Your task to perform on an android device: refresh tabs in the chrome app Image 0: 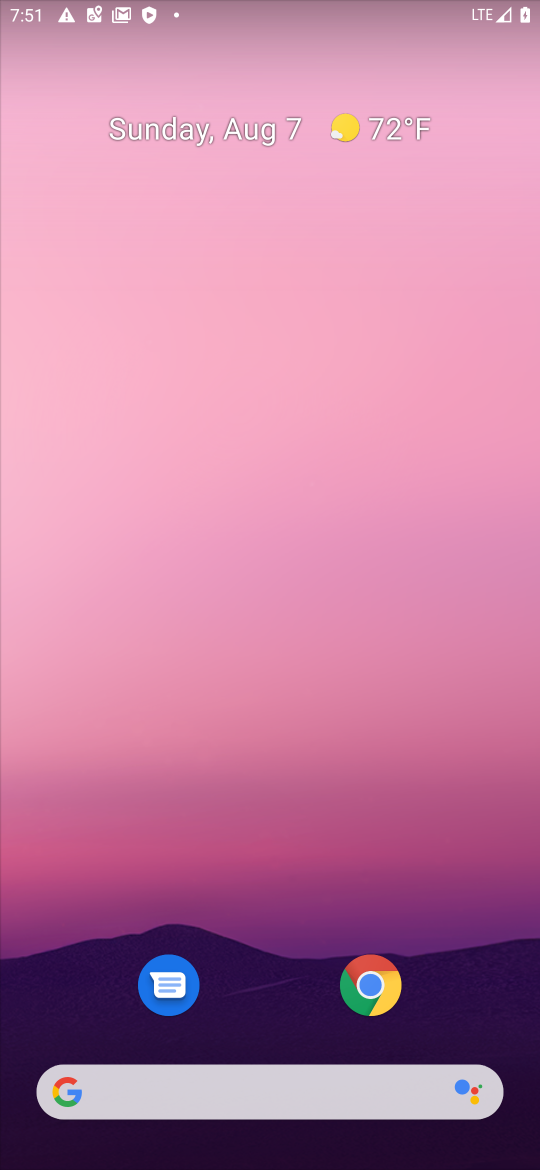
Step 0: drag from (226, 1055) to (251, 296)
Your task to perform on an android device: refresh tabs in the chrome app Image 1: 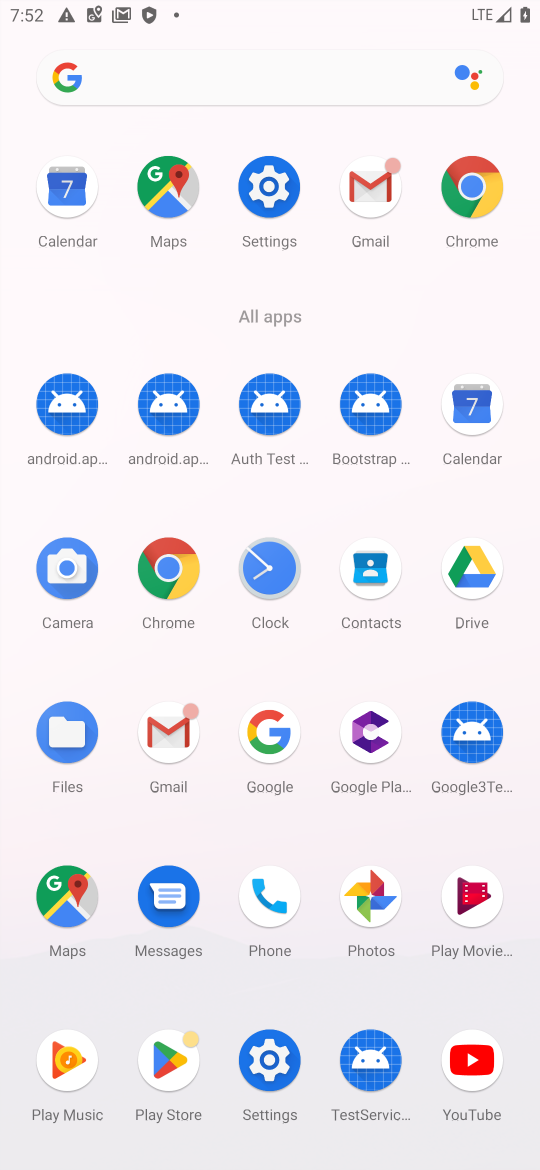
Step 1: click (464, 180)
Your task to perform on an android device: refresh tabs in the chrome app Image 2: 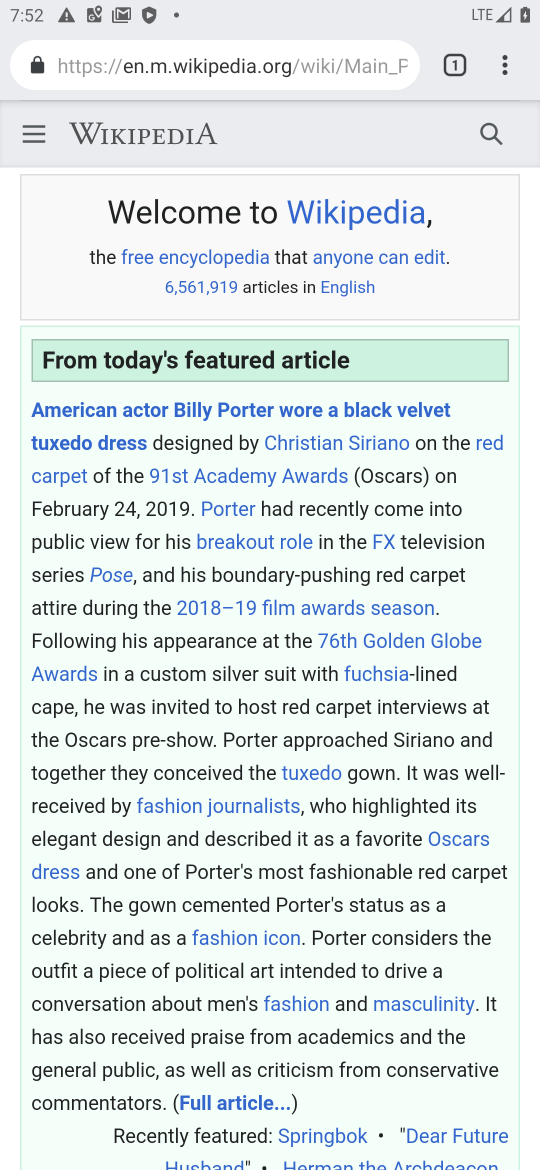
Step 2: click (497, 77)
Your task to perform on an android device: refresh tabs in the chrome app Image 3: 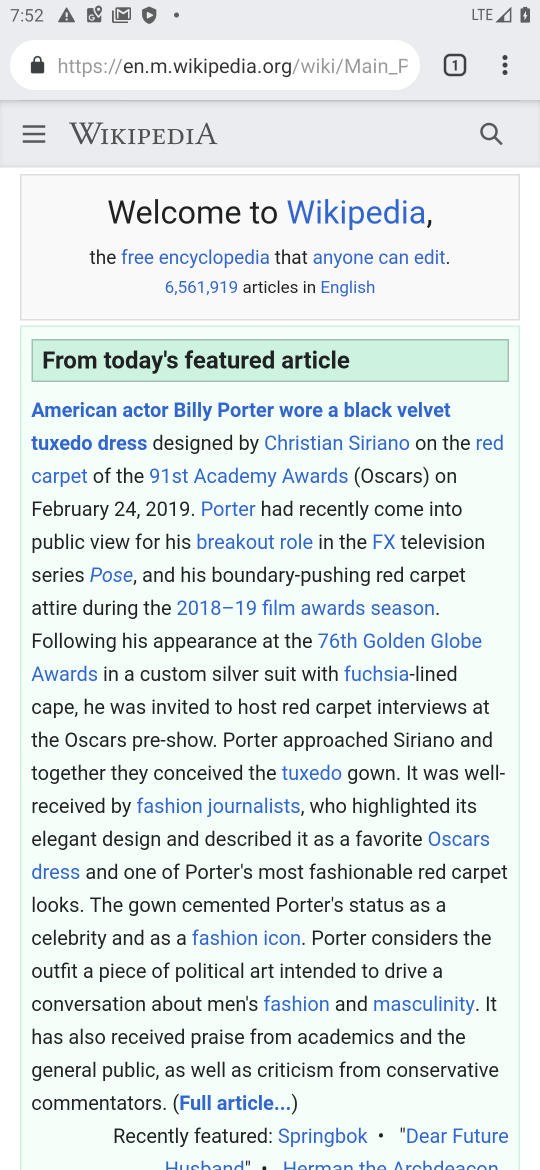
Step 3: click (489, 70)
Your task to perform on an android device: refresh tabs in the chrome app Image 4: 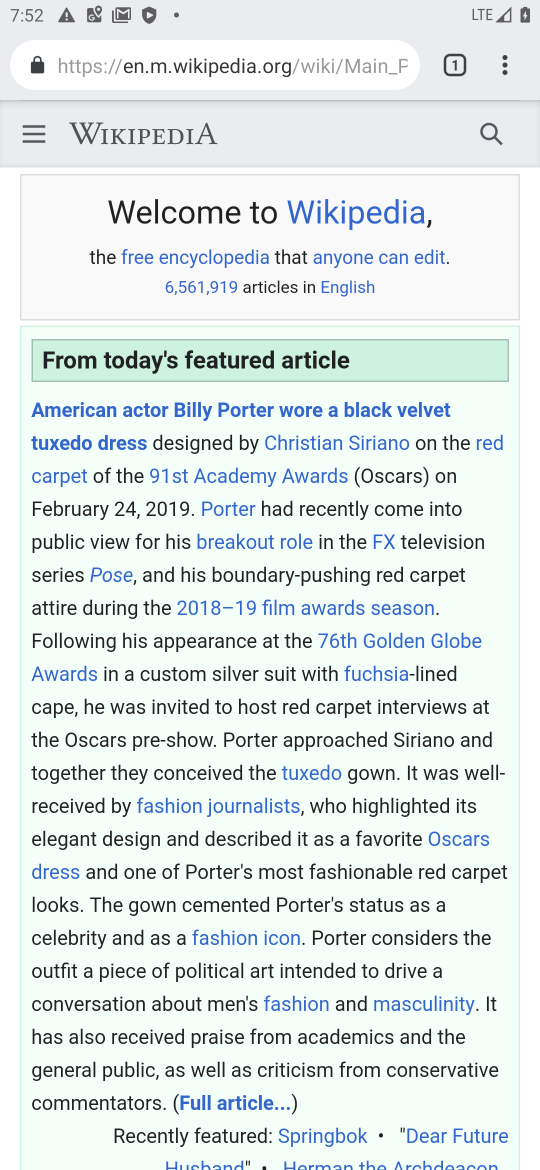
Step 4: click (489, 70)
Your task to perform on an android device: refresh tabs in the chrome app Image 5: 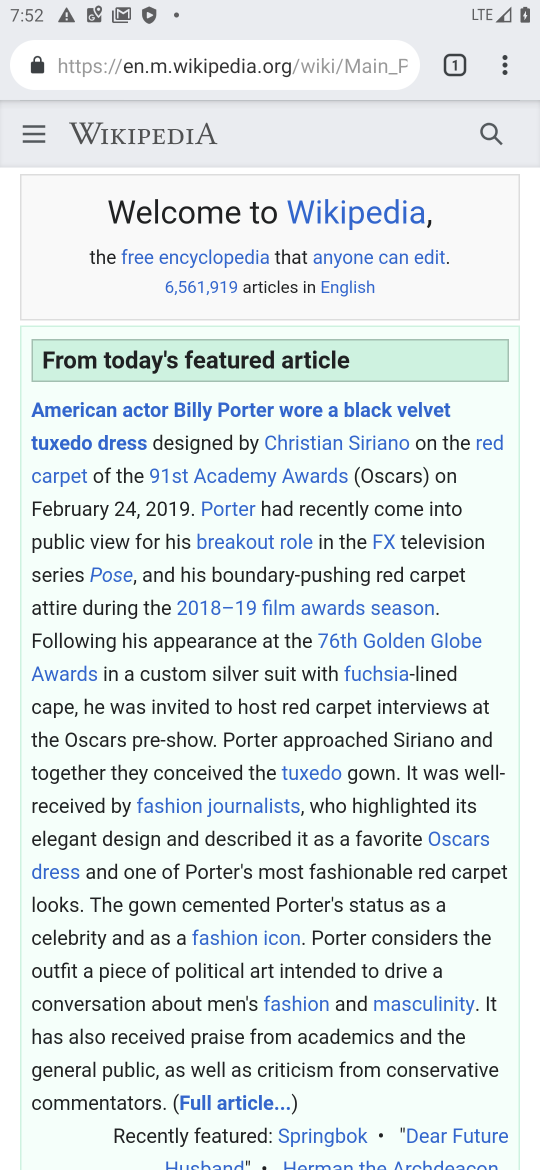
Step 5: click (505, 55)
Your task to perform on an android device: refresh tabs in the chrome app Image 6: 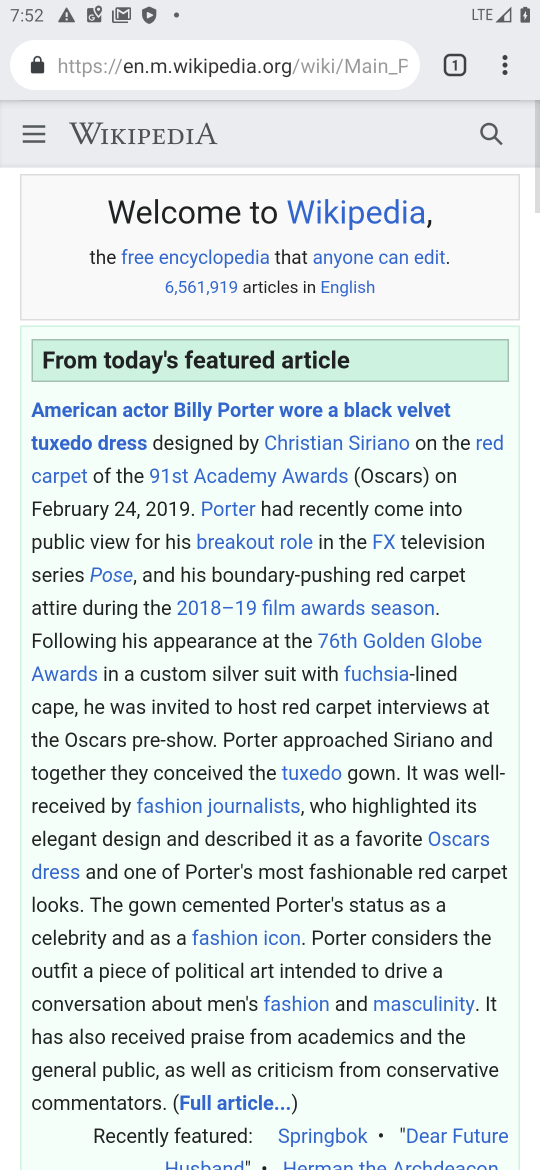
Step 6: click (502, 78)
Your task to perform on an android device: refresh tabs in the chrome app Image 7: 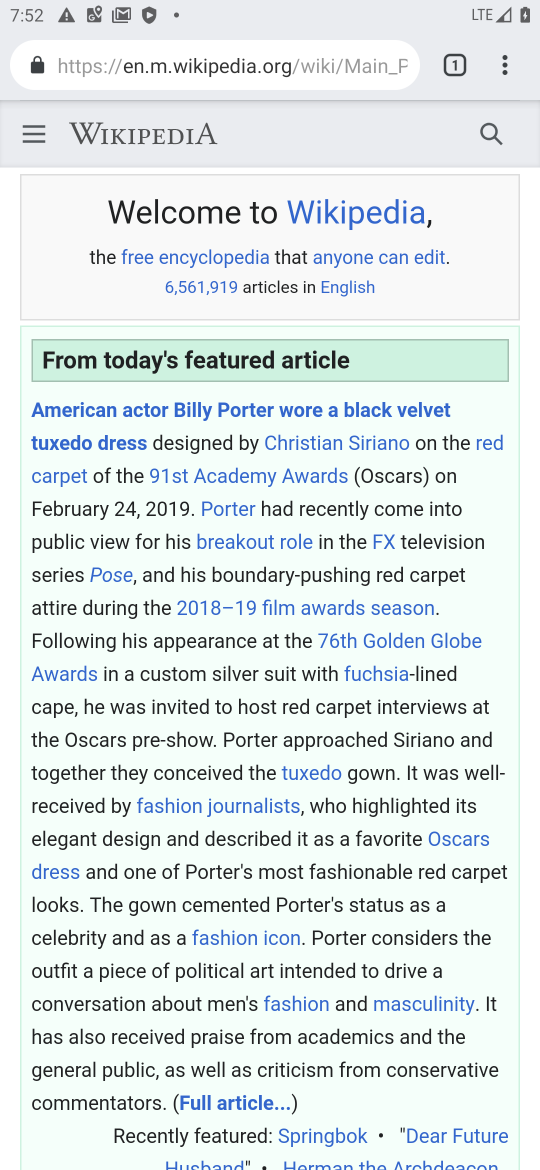
Step 7: click (510, 60)
Your task to perform on an android device: refresh tabs in the chrome app Image 8: 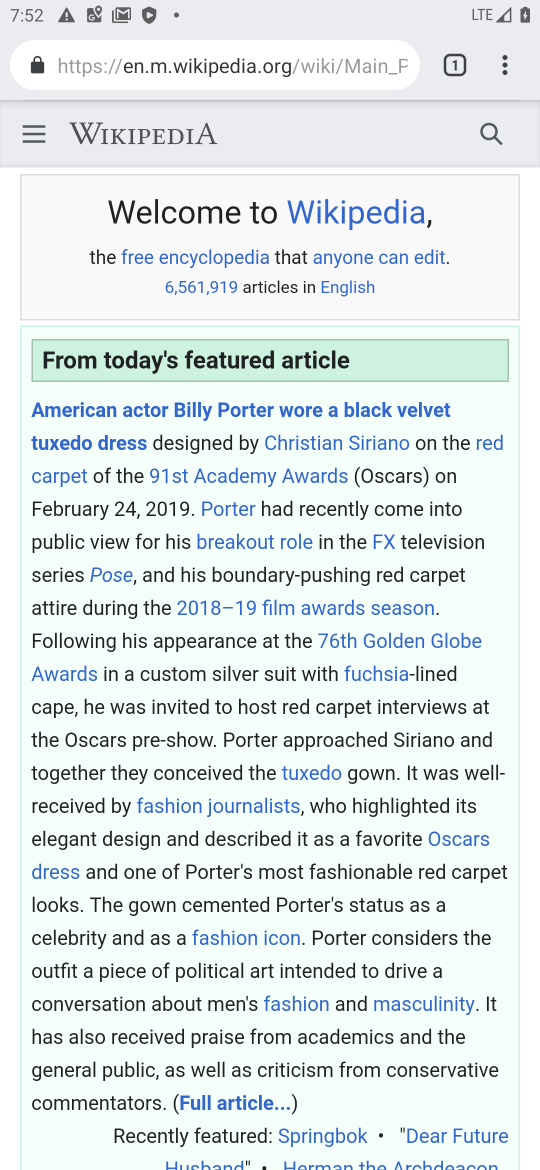
Step 8: click (513, 55)
Your task to perform on an android device: refresh tabs in the chrome app Image 9: 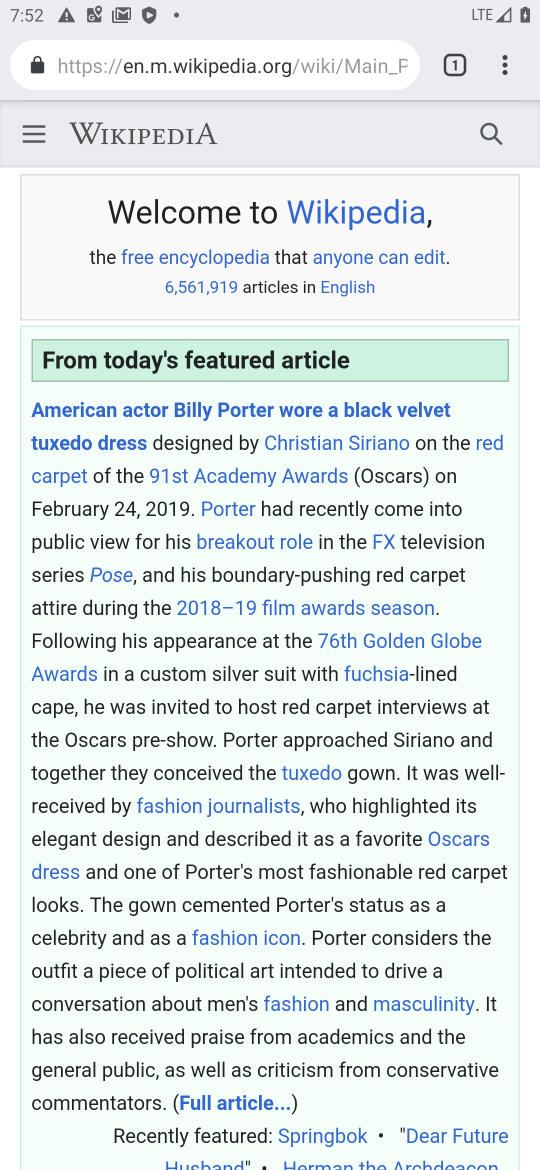
Step 9: click (513, 58)
Your task to perform on an android device: refresh tabs in the chrome app Image 10: 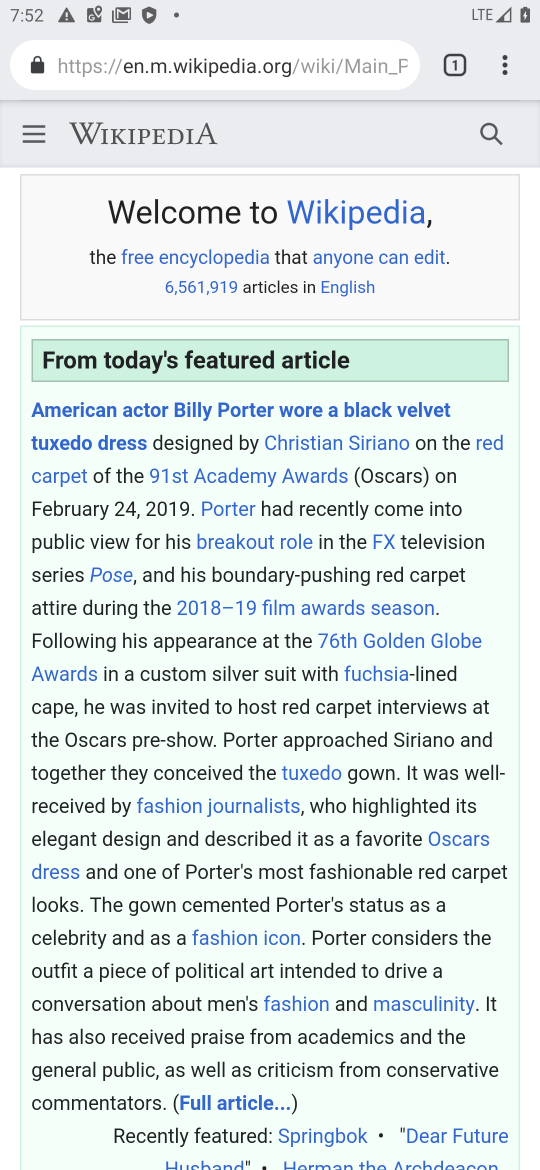
Step 10: click (495, 72)
Your task to perform on an android device: refresh tabs in the chrome app Image 11: 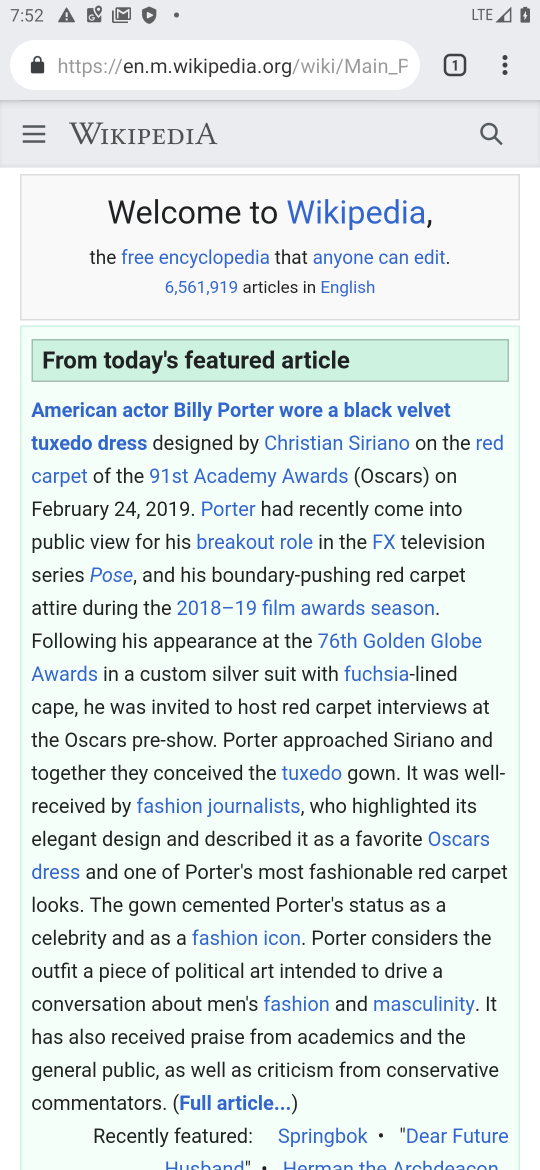
Step 11: click (495, 72)
Your task to perform on an android device: refresh tabs in the chrome app Image 12: 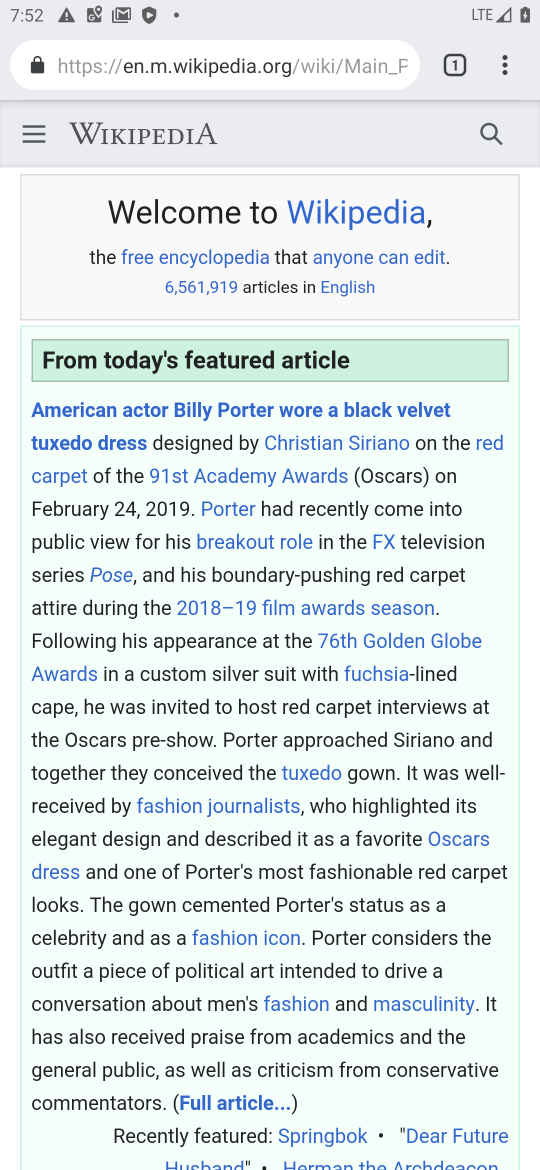
Step 12: click (483, 56)
Your task to perform on an android device: refresh tabs in the chrome app Image 13: 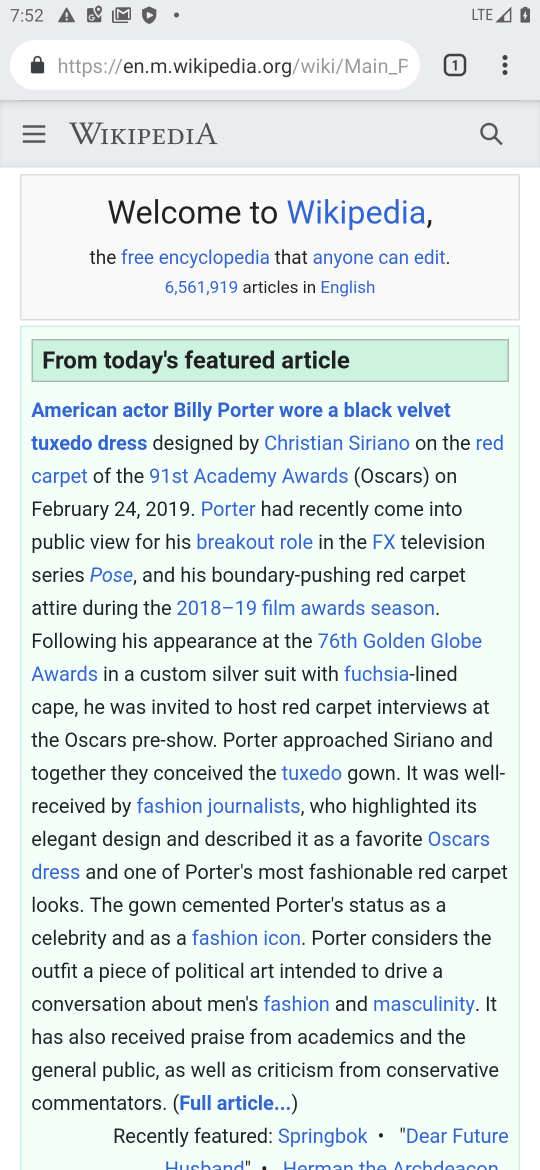
Step 13: click (493, 71)
Your task to perform on an android device: refresh tabs in the chrome app Image 14: 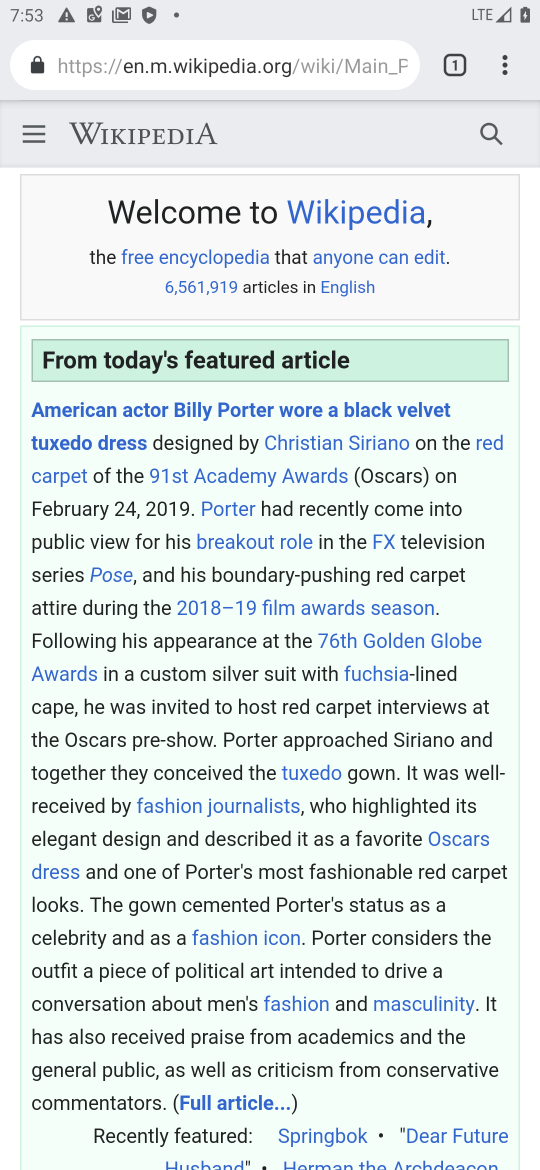
Step 14: click (493, 71)
Your task to perform on an android device: refresh tabs in the chrome app Image 15: 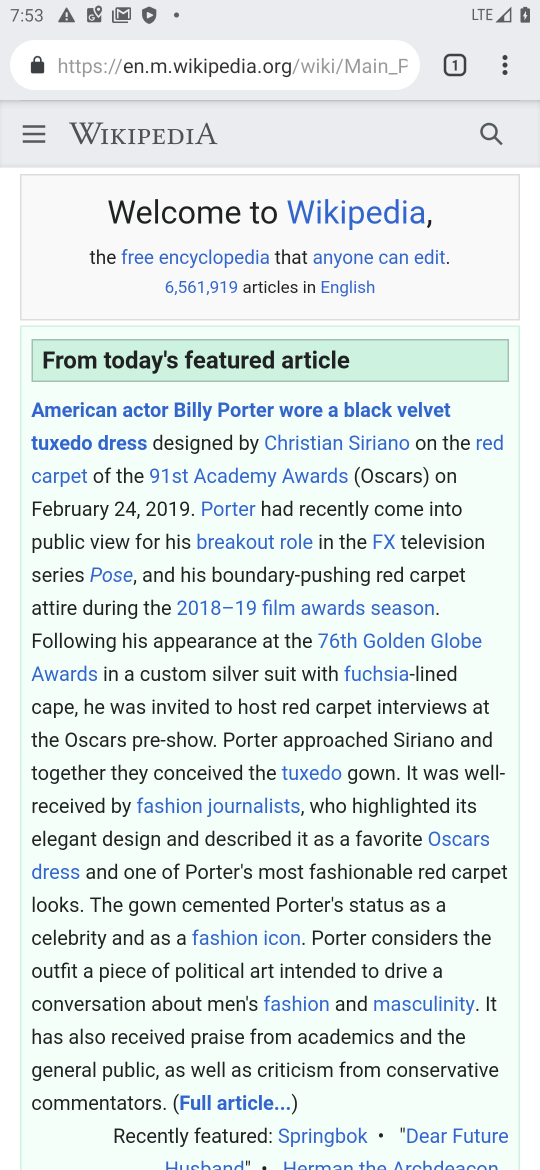
Step 15: click (523, 62)
Your task to perform on an android device: refresh tabs in the chrome app Image 16: 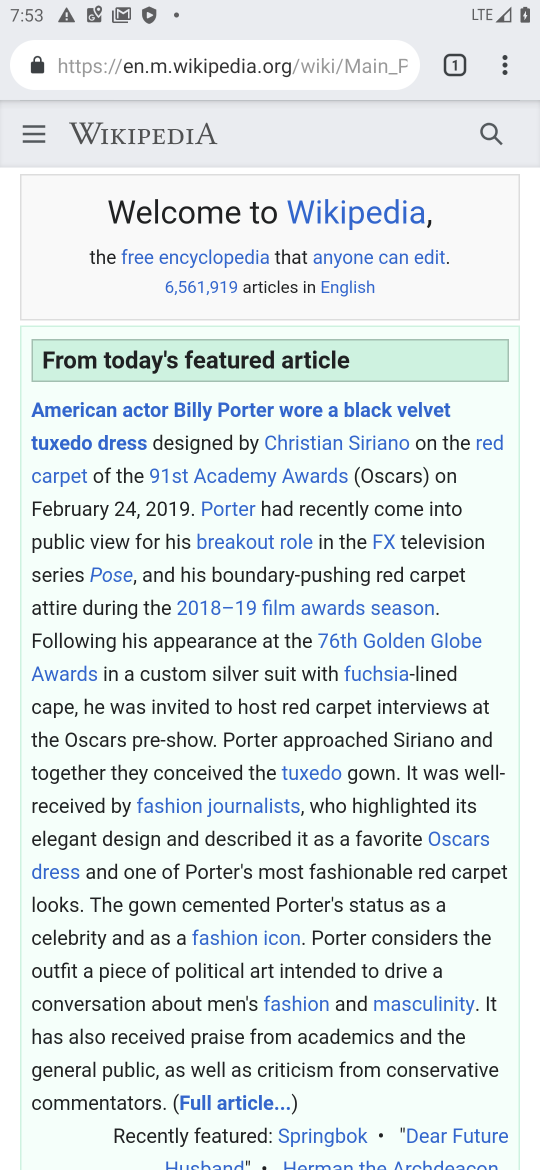
Step 16: click (498, 61)
Your task to perform on an android device: refresh tabs in the chrome app Image 17: 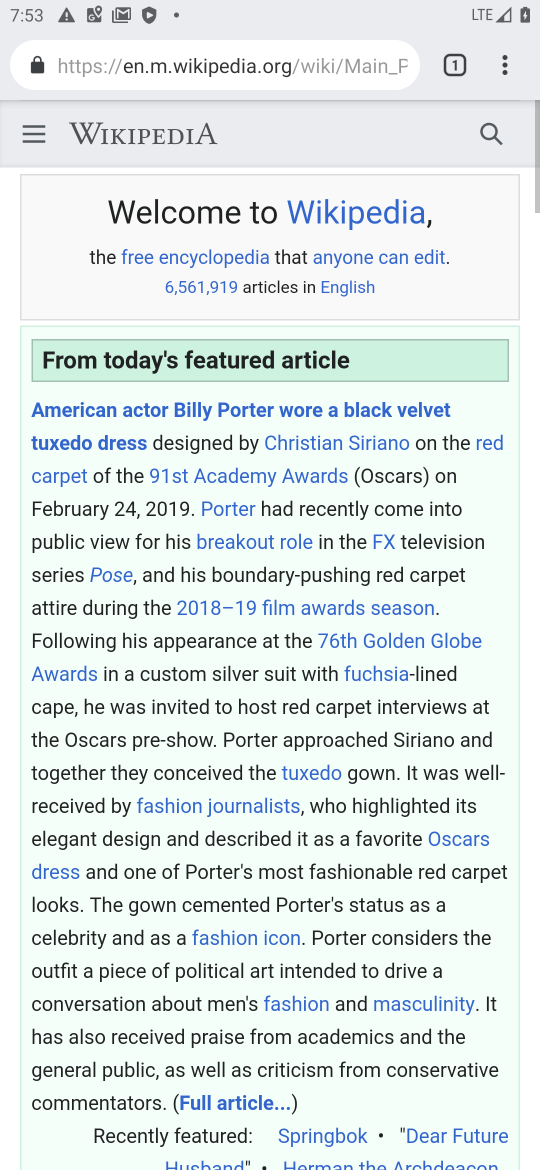
Step 17: click (498, 61)
Your task to perform on an android device: refresh tabs in the chrome app Image 18: 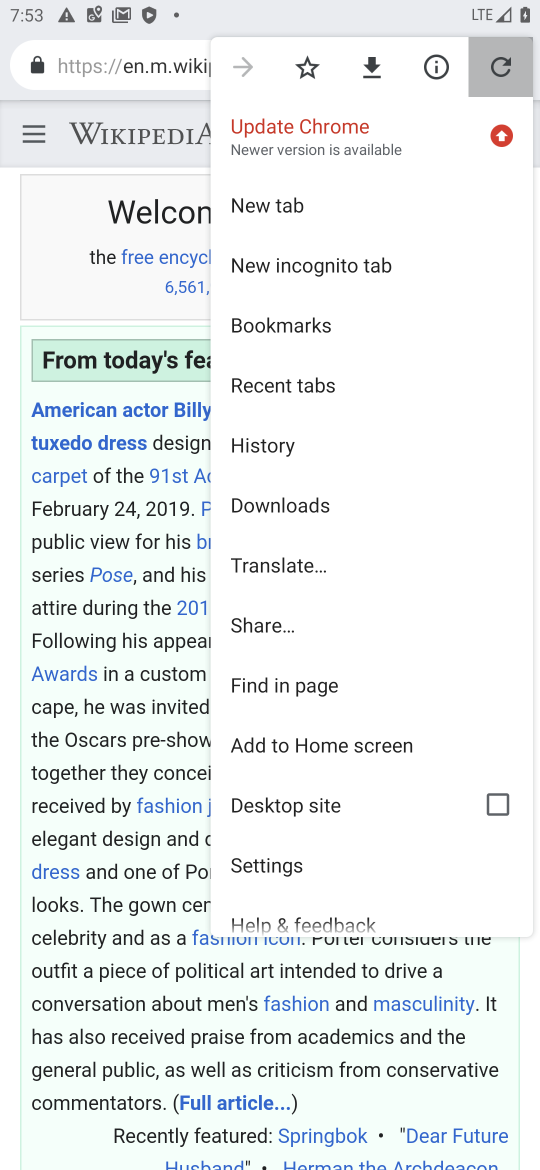
Step 18: click (498, 61)
Your task to perform on an android device: refresh tabs in the chrome app Image 19: 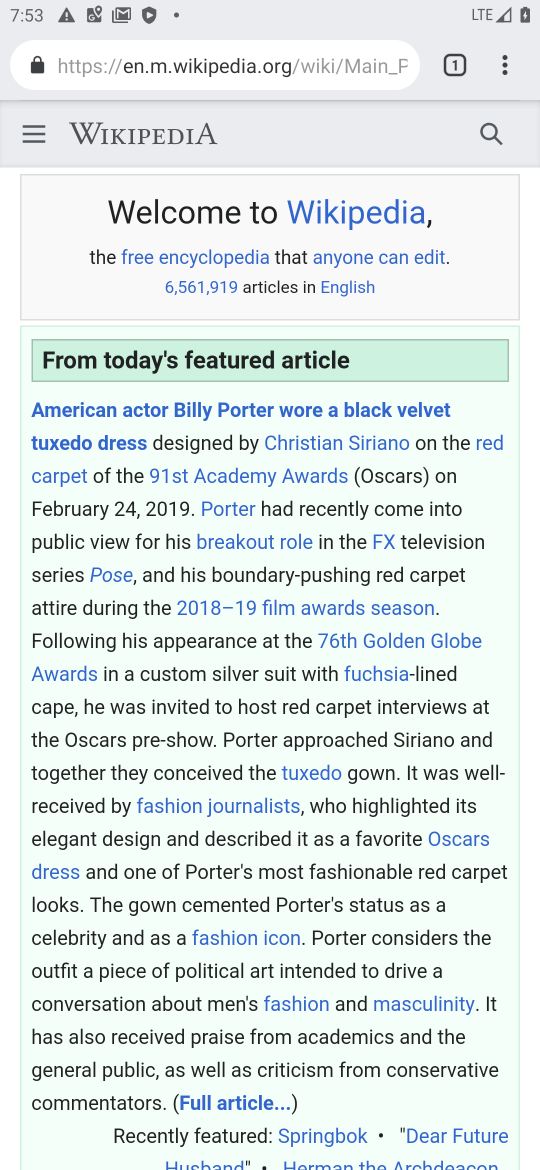
Step 19: task complete